Your task to perform on an android device: open app "Venmo" (install if not already installed) Image 0: 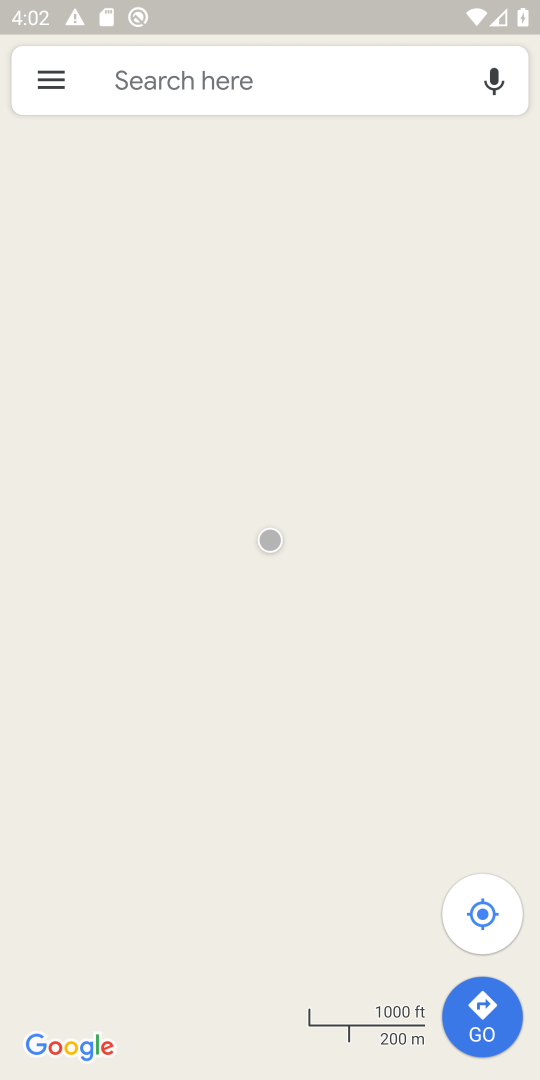
Step 0: press home button
Your task to perform on an android device: open app "Venmo" (install if not already installed) Image 1: 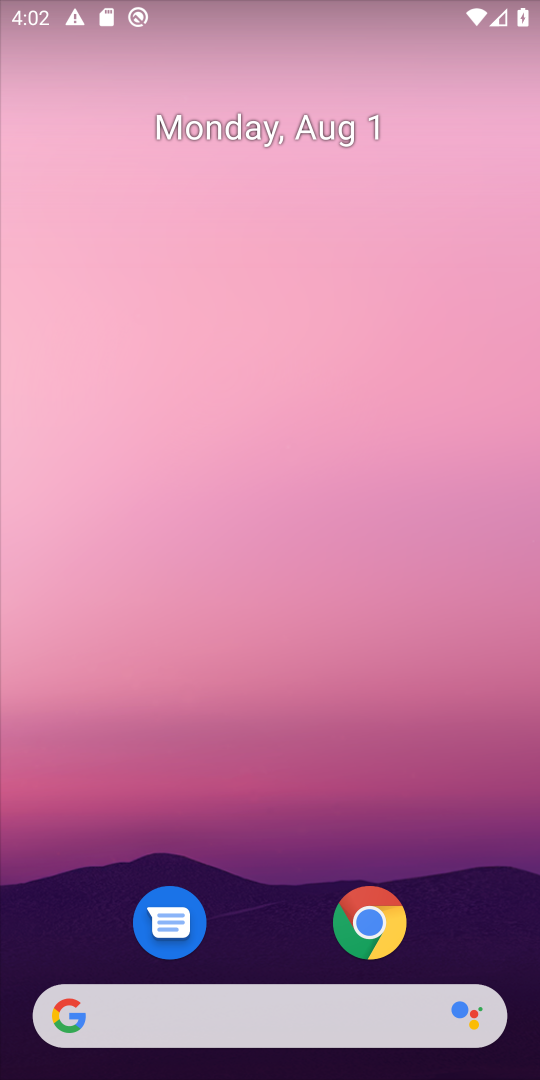
Step 1: drag from (284, 954) to (357, 7)
Your task to perform on an android device: open app "Venmo" (install if not already installed) Image 2: 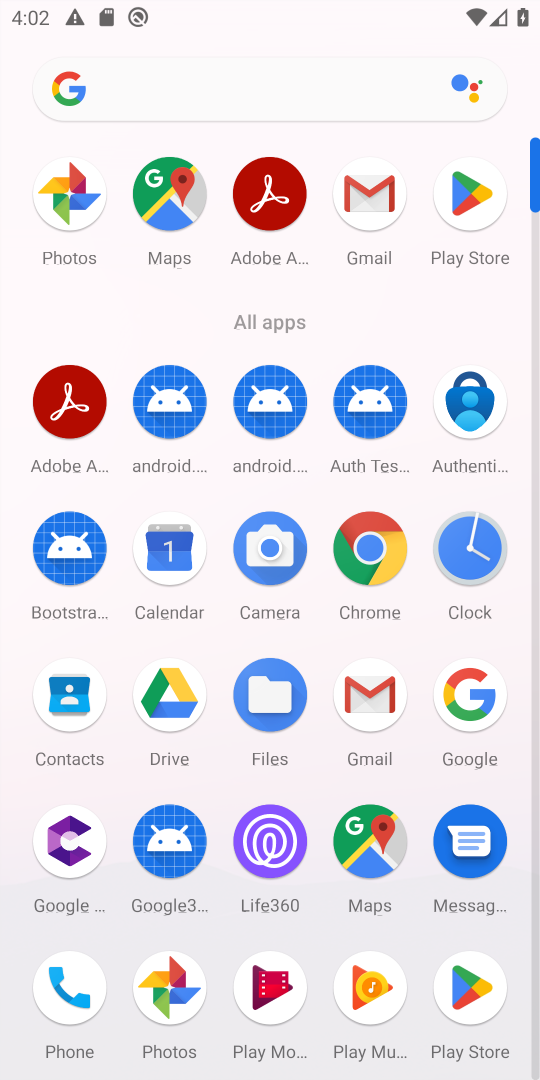
Step 2: click (470, 195)
Your task to perform on an android device: open app "Venmo" (install if not already installed) Image 3: 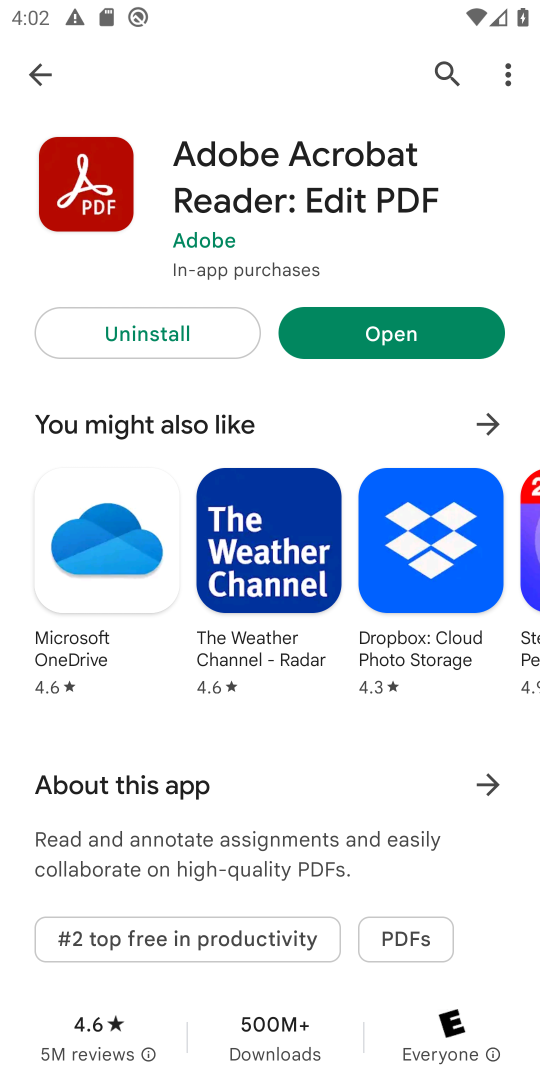
Step 3: click (441, 73)
Your task to perform on an android device: open app "Venmo" (install if not already installed) Image 4: 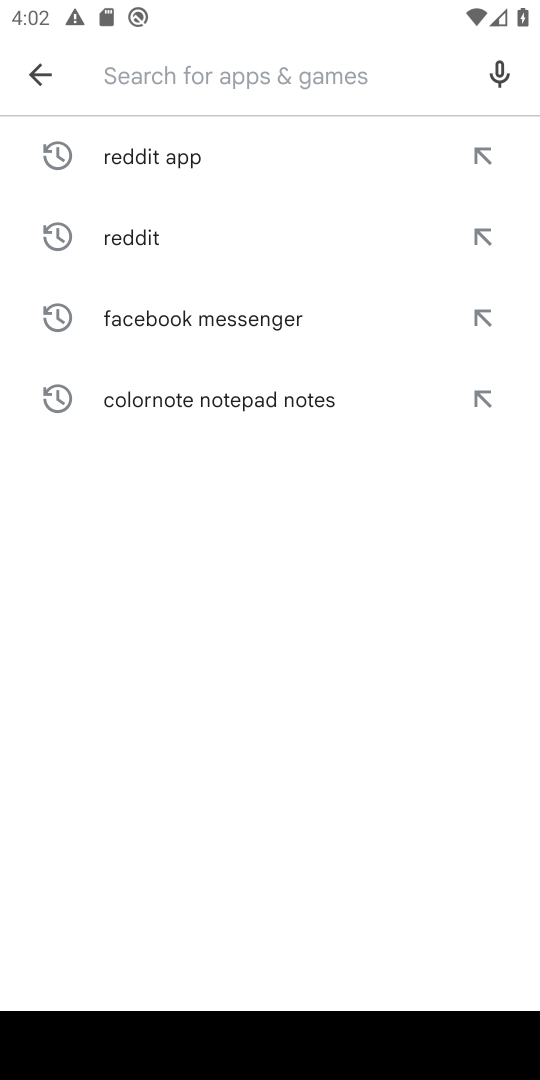
Step 4: type "Venmo"
Your task to perform on an android device: open app "Venmo" (install if not already installed) Image 5: 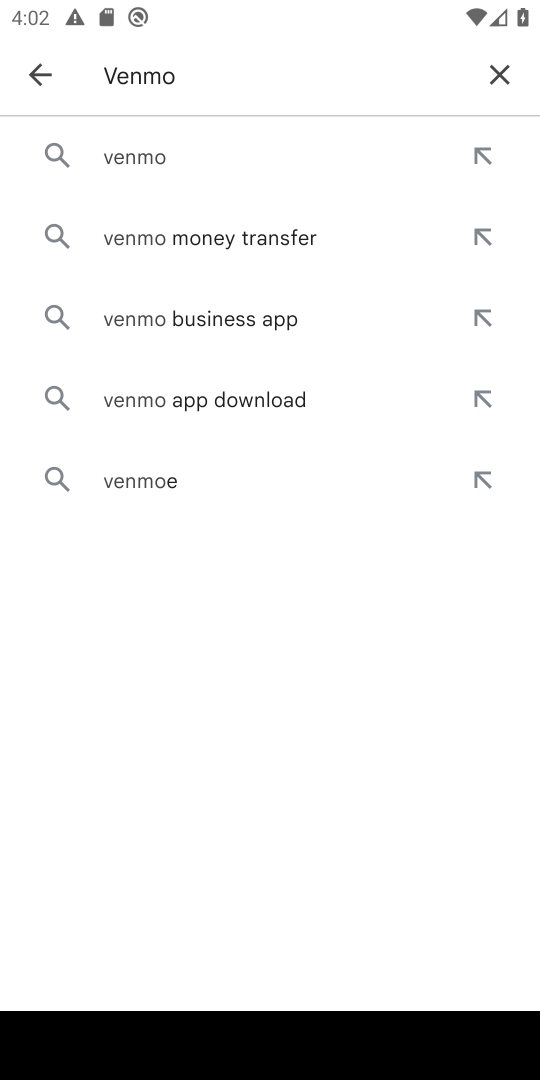
Step 5: click (145, 167)
Your task to perform on an android device: open app "Venmo" (install if not already installed) Image 6: 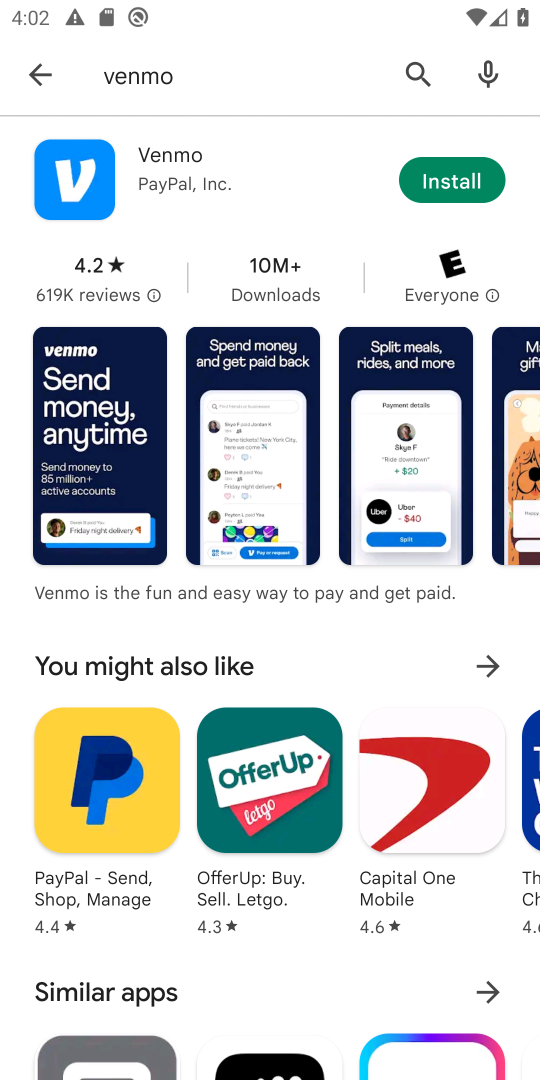
Step 6: click (433, 186)
Your task to perform on an android device: open app "Venmo" (install if not already installed) Image 7: 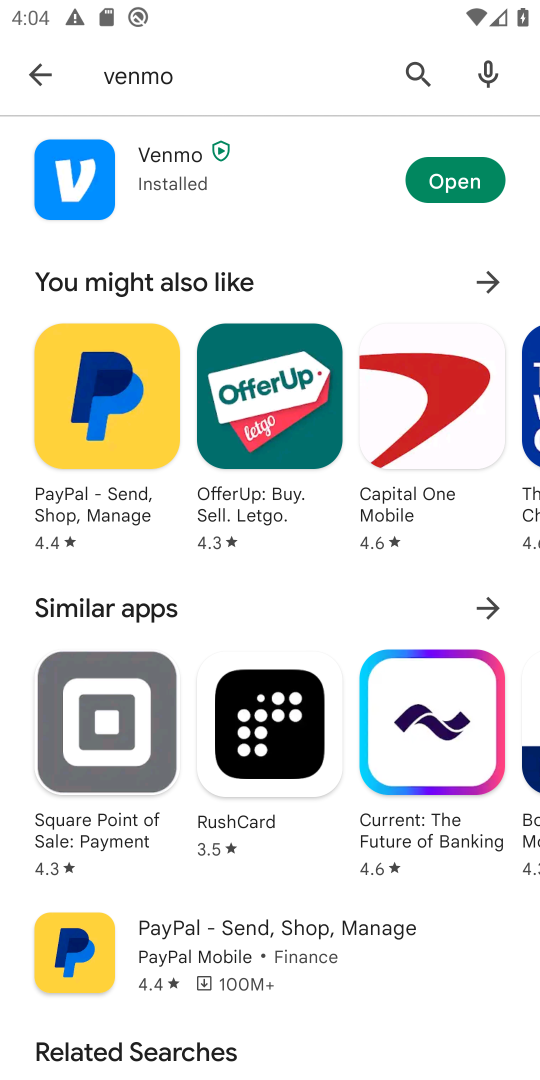
Step 7: click (444, 180)
Your task to perform on an android device: open app "Venmo" (install if not already installed) Image 8: 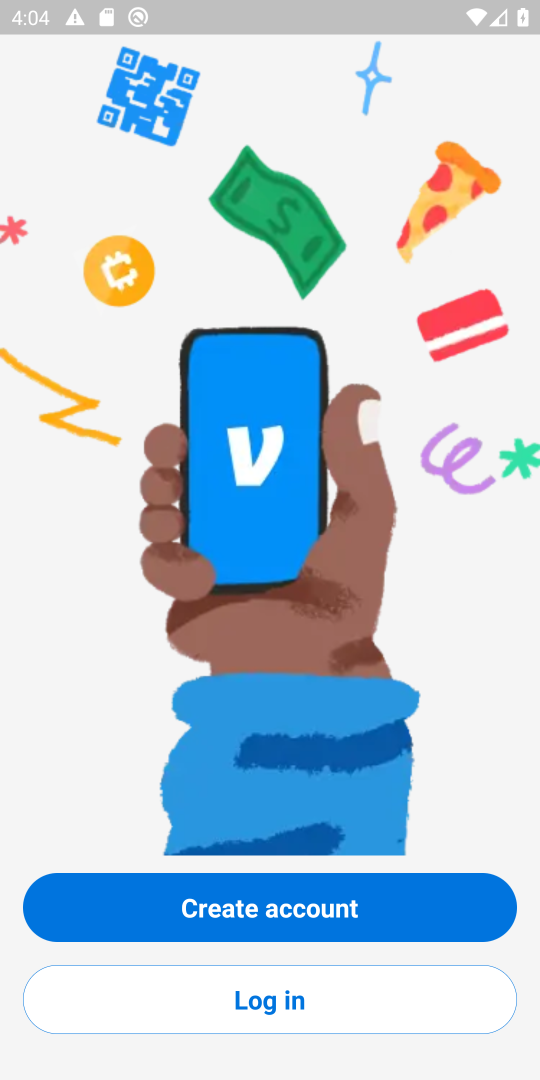
Step 8: task complete